Your task to perform on an android device: Go to Yahoo.com Image 0: 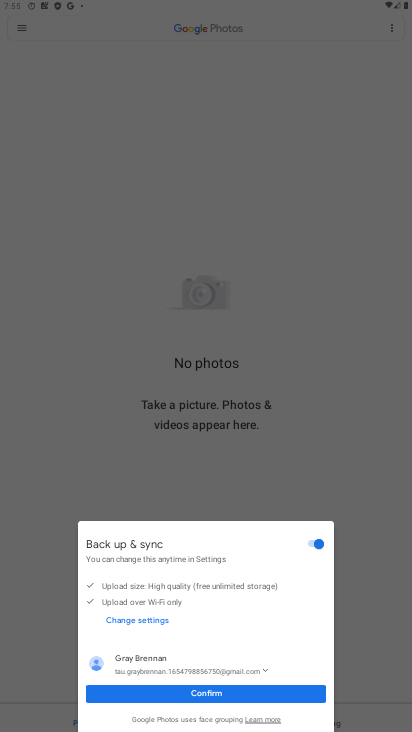
Step 0: press home button
Your task to perform on an android device: Go to Yahoo.com Image 1: 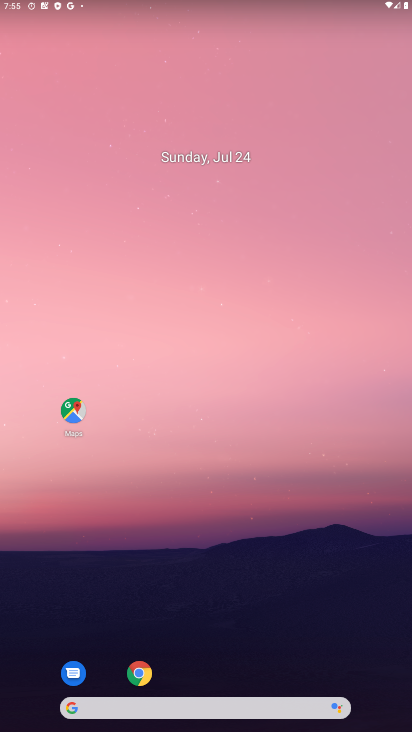
Step 1: click (88, 709)
Your task to perform on an android device: Go to Yahoo.com Image 2: 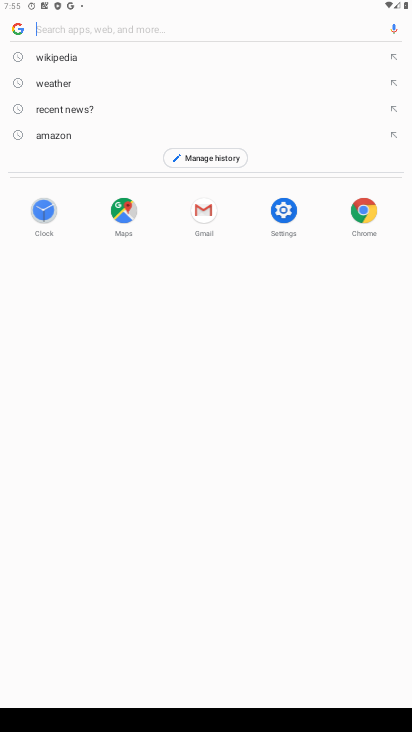
Step 2: type "Yahoo.com"
Your task to perform on an android device: Go to Yahoo.com Image 3: 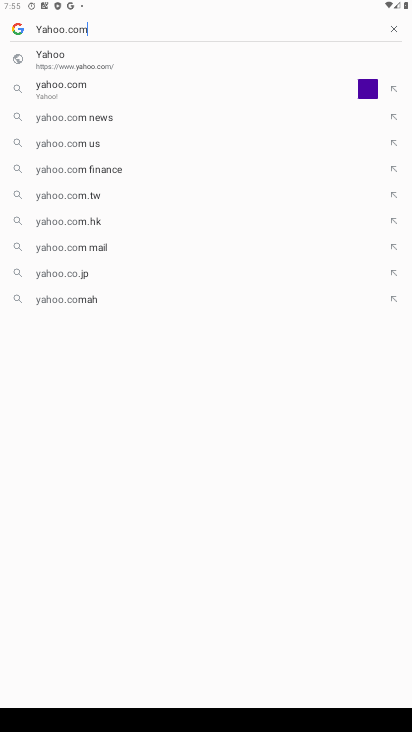
Step 3: type ""
Your task to perform on an android device: Go to Yahoo.com Image 4: 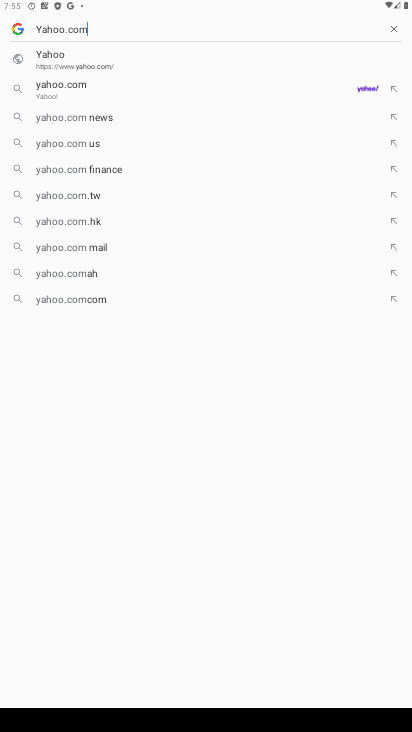
Step 4: type ""
Your task to perform on an android device: Go to Yahoo.com Image 5: 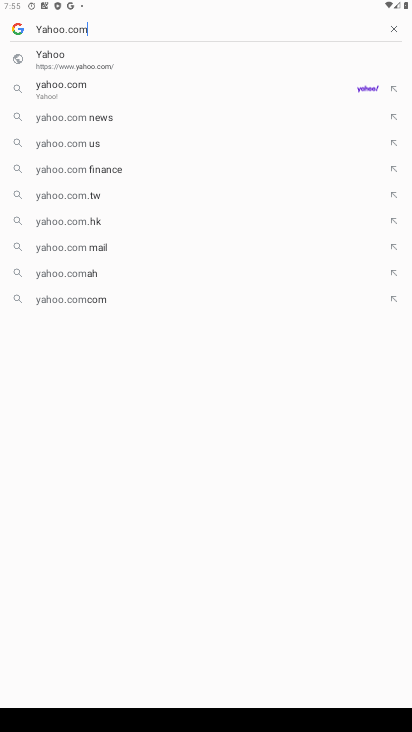
Step 5: click (58, 90)
Your task to perform on an android device: Go to Yahoo.com Image 6: 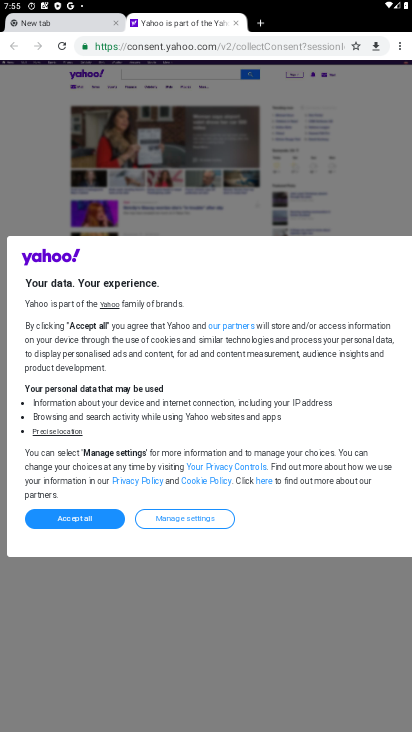
Step 6: task complete